Your task to perform on an android device: Open Chrome and go to settings Image 0: 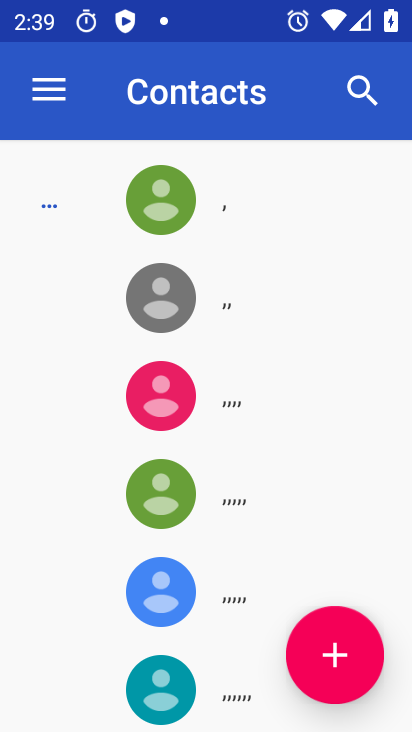
Step 0: press home button
Your task to perform on an android device: Open Chrome and go to settings Image 1: 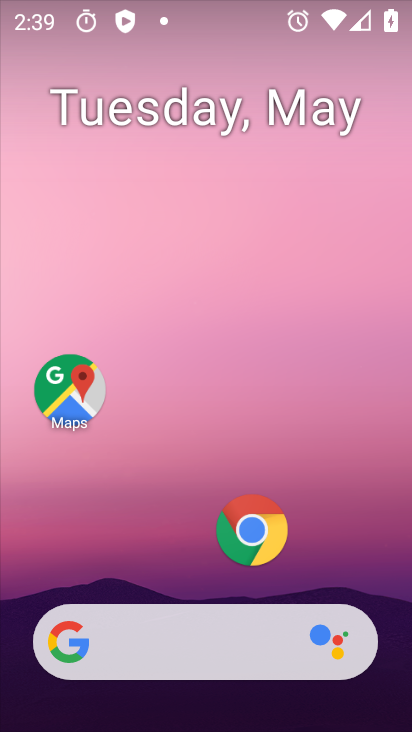
Step 1: click (255, 528)
Your task to perform on an android device: Open Chrome and go to settings Image 2: 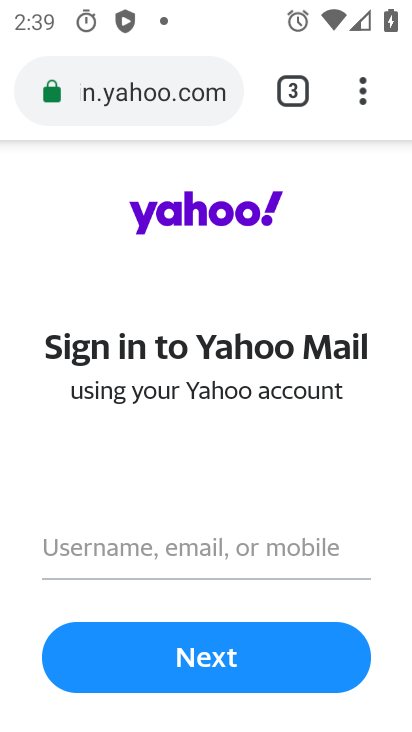
Step 2: click (365, 96)
Your task to perform on an android device: Open Chrome and go to settings Image 3: 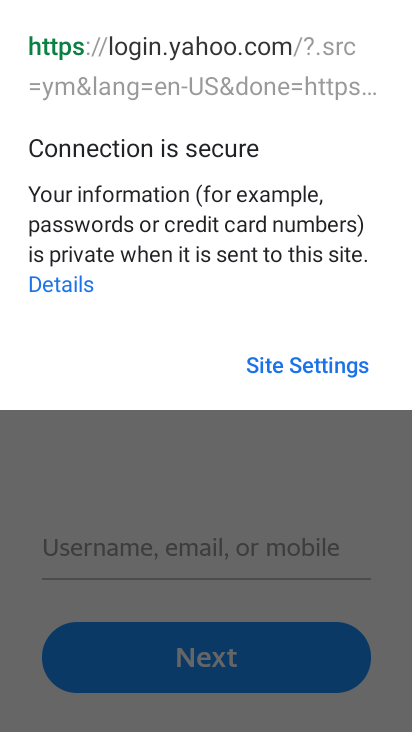
Step 3: click (356, 348)
Your task to perform on an android device: Open Chrome and go to settings Image 4: 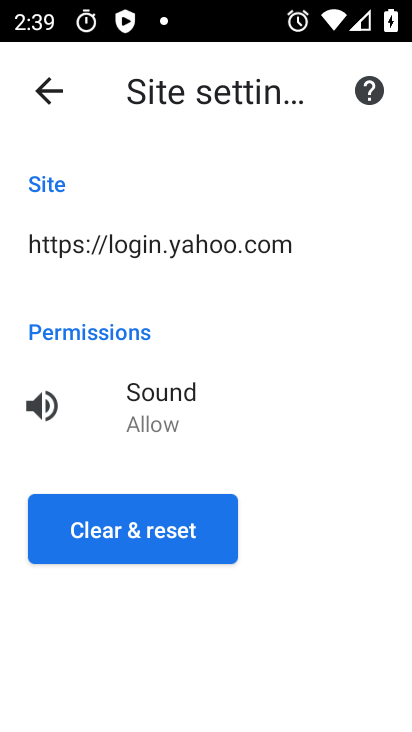
Step 4: click (55, 81)
Your task to perform on an android device: Open Chrome and go to settings Image 5: 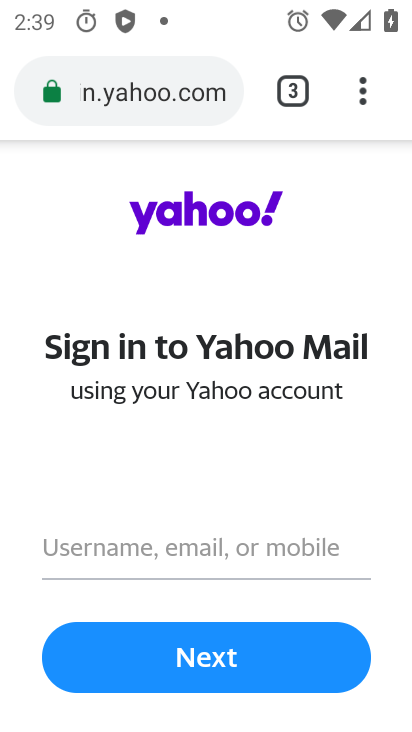
Step 5: task complete